Your task to perform on an android device: What's the weather going to be tomorrow? Image 0: 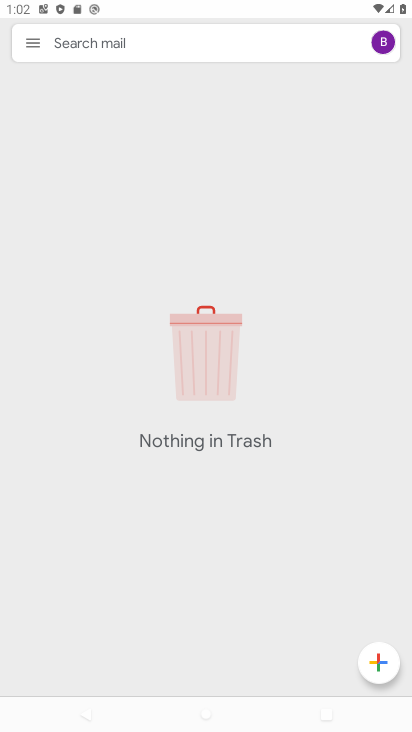
Step 0: press home button
Your task to perform on an android device: What's the weather going to be tomorrow? Image 1: 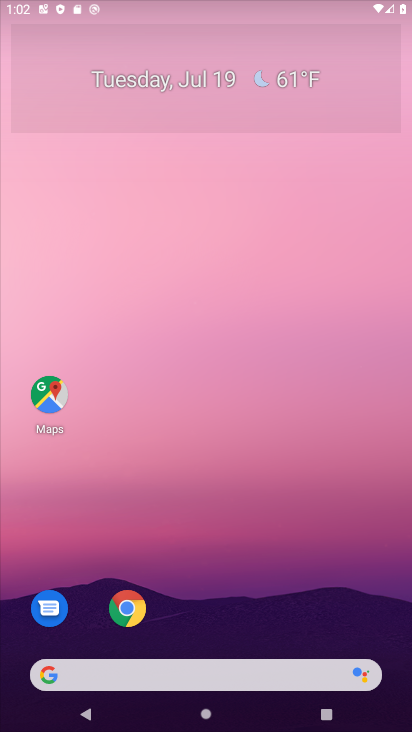
Step 1: drag from (254, 591) to (235, 55)
Your task to perform on an android device: What's the weather going to be tomorrow? Image 2: 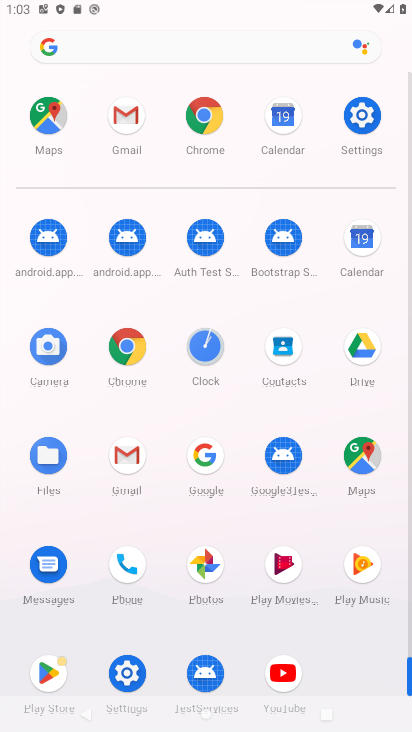
Step 2: click (205, 461)
Your task to perform on an android device: What's the weather going to be tomorrow? Image 3: 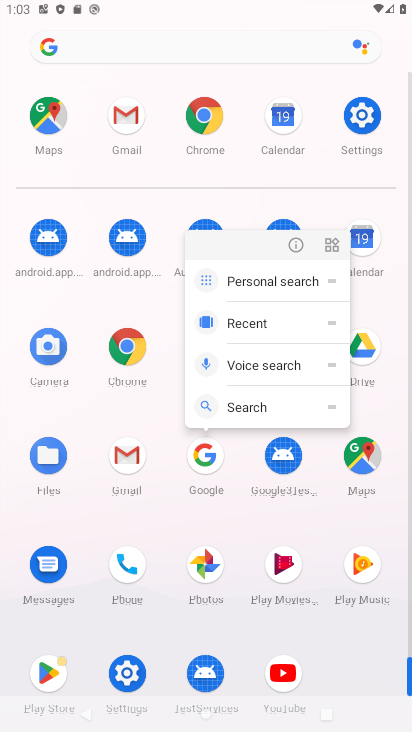
Step 3: click (204, 461)
Your task to perform on an android device: What's the weather going to be tomorrow? Image 4: 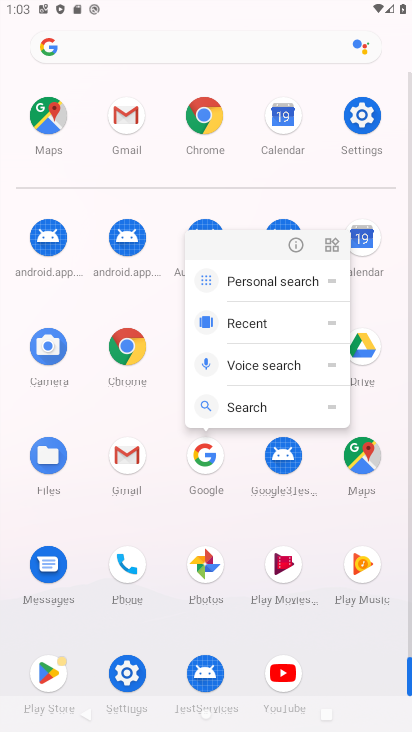
Step 4: click (202, 458)
Your task to perform on an android device: What's the weather going to be tomorrow? Image 5: 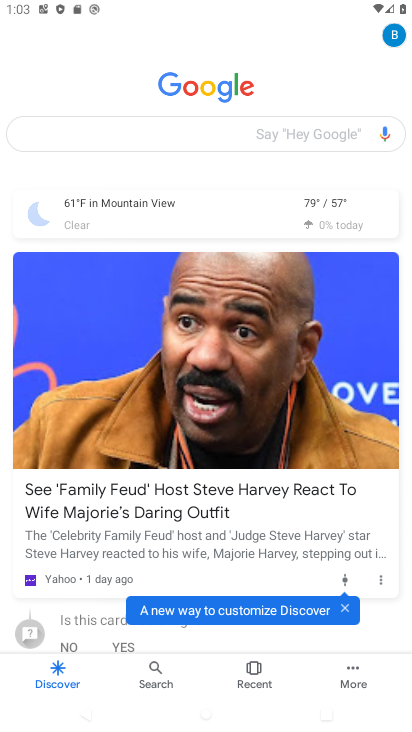
Step 5: click (97, 196)
Your task to perform on an android device: What's the weather going to be tomorrow? Image 6: 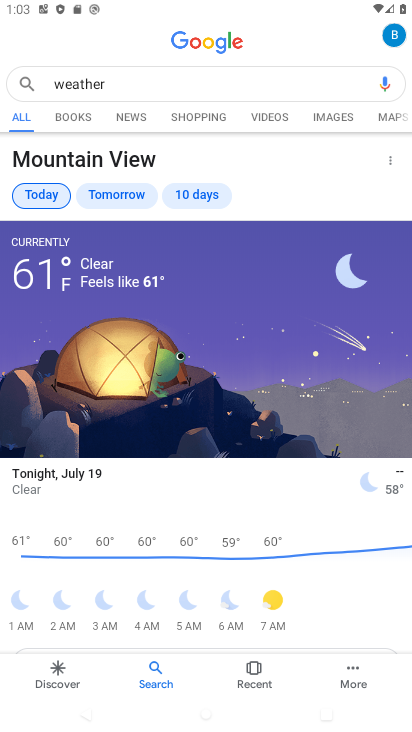
Step 6: click (97, 196)
Your task to perform on an android device: What's the weather going to be tomorrow? Image 7: 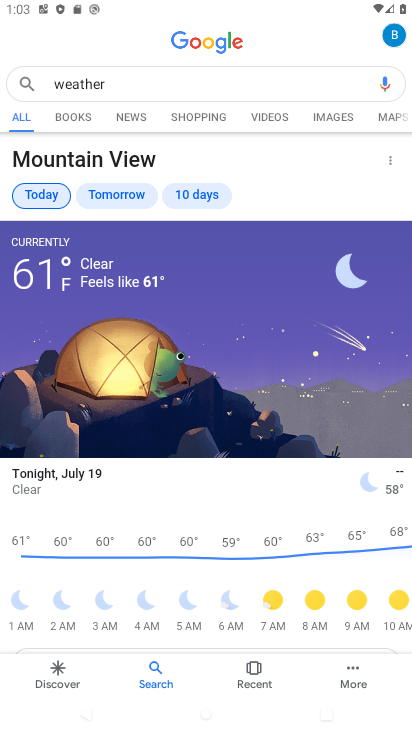
Step 7: click (97, 196)
Your task to perform on an android device: What's the weather going to be tomorrow? Image 8: 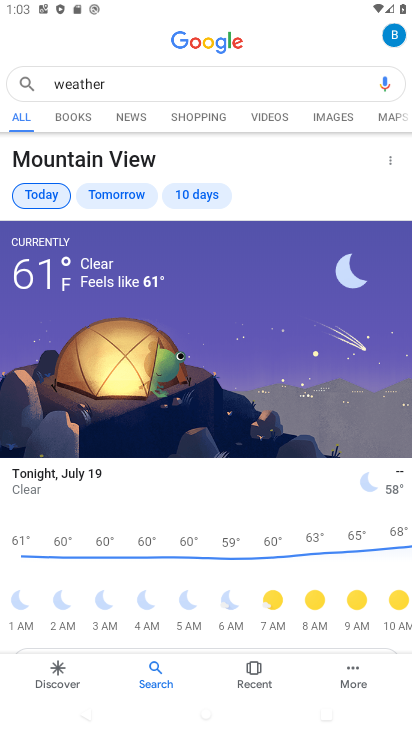
Step 8: task complete